Your task to perform on an android device: Open accessibility settings Image 0: 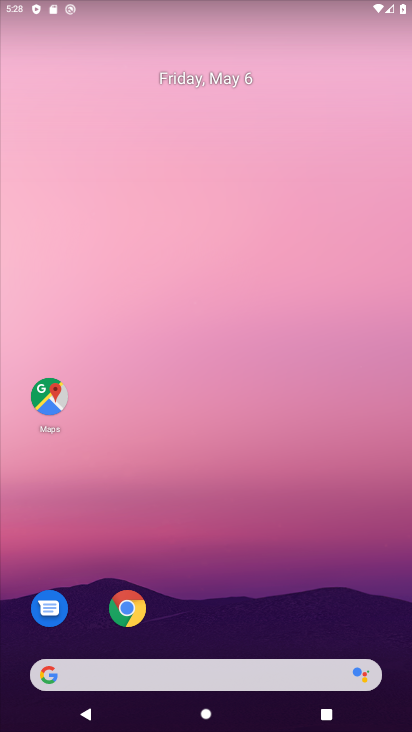
Step 0: drag from (319, 538) to (315, 258)
Your task to perform on an android device: Open accessibility settings Image 1: 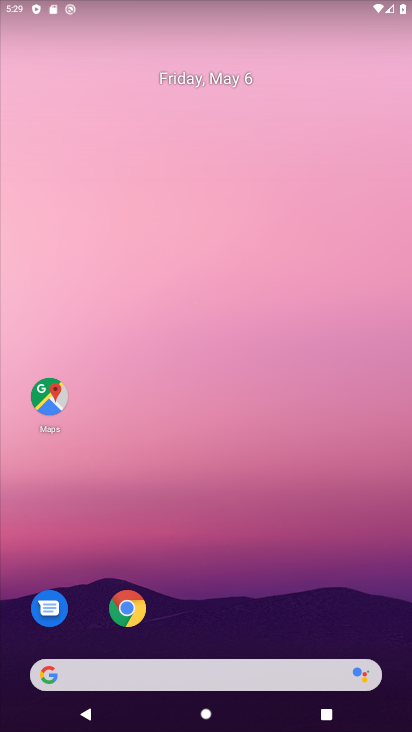
Step 1: drag from (288, 424) to (319, 116)
Your task to perform on an android device: Open accessibility settings Image 2: 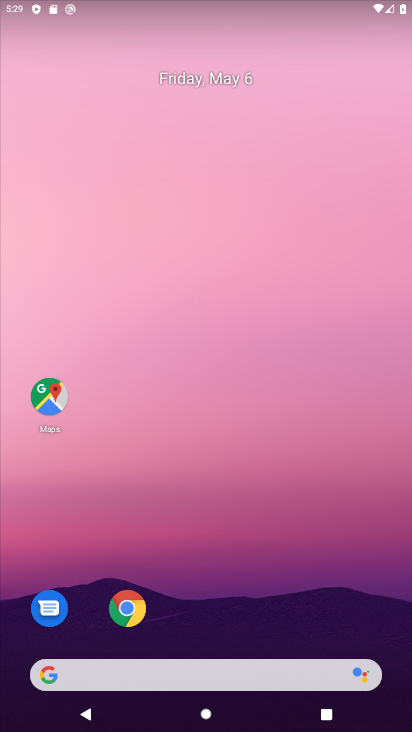
Step 2: drag from (279, 547) to (200, 60)
Your task to perform on an android device: Open accessibility settings Image 3: 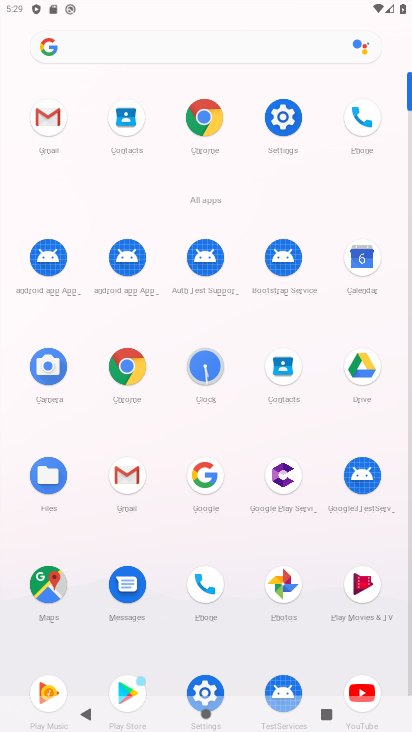
Step 3: click (207, 690)
Your task to perform on an android device: Open accessibility settings Image 4: 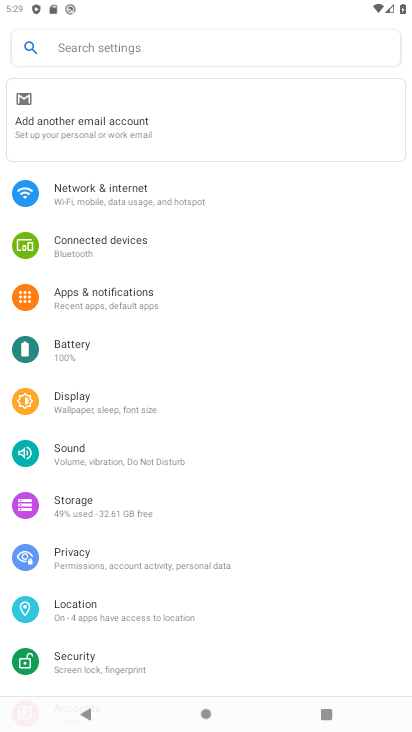
Step 4: drag from (177, 608) to (265, 177)
Your task to perform on an android device: Open accessibility settings Image 5: 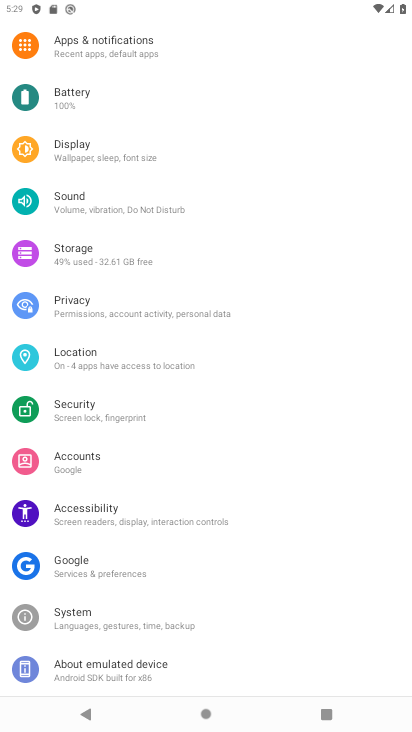
Step 5: click (119, 509)
Your task to perform on an android device: Open accessibility settings Image 6: 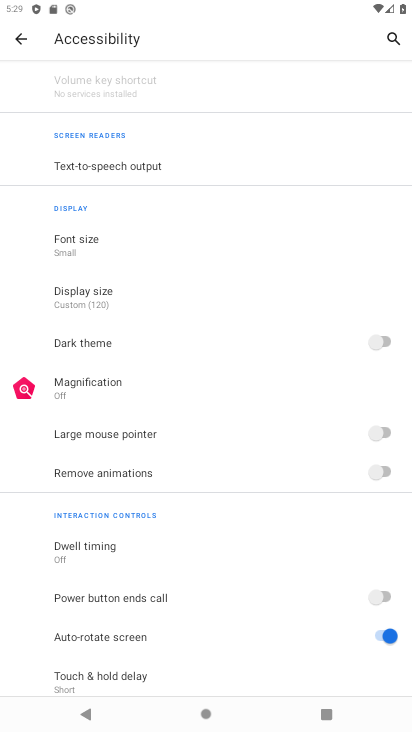
Step 6: task complete